Your task to perform on an android device: Open the calendar and show me this week's events Image 0: 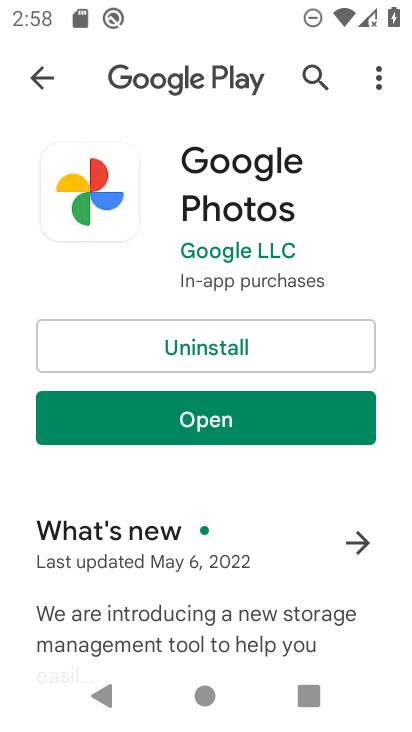
Step 0: press home button
Your task to perform on an android device: Open the calendar and show me this week's events Image 1: 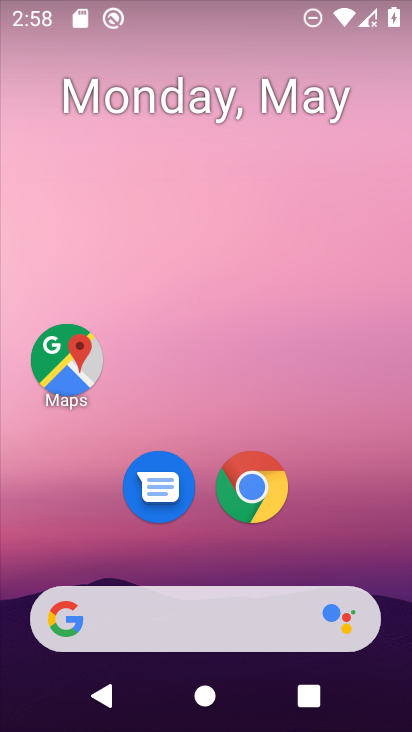
Step 1: drag from (395, 655) to (386, 163)
Your task to perform on an android device: Open the calendar and show me this week's events Image 2: 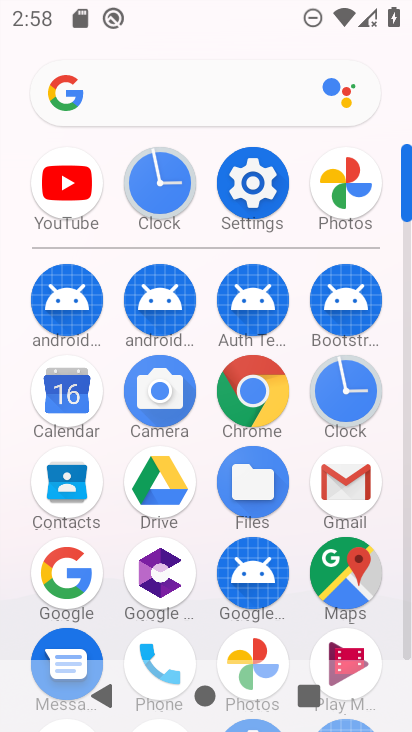
Step 2: click (68, 407)
Your task to perform on an android device: Open the calendar and show me this week's events Image 3: 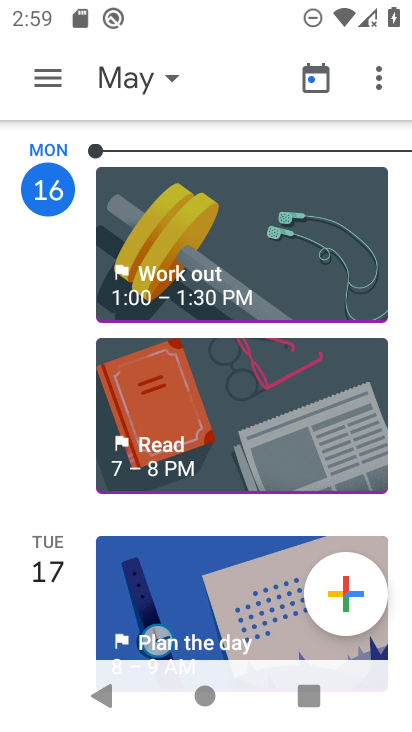
Step 3: click (166, 78)
Your task to perform on an android device: Open the calendar and show me this week's events Image 4: 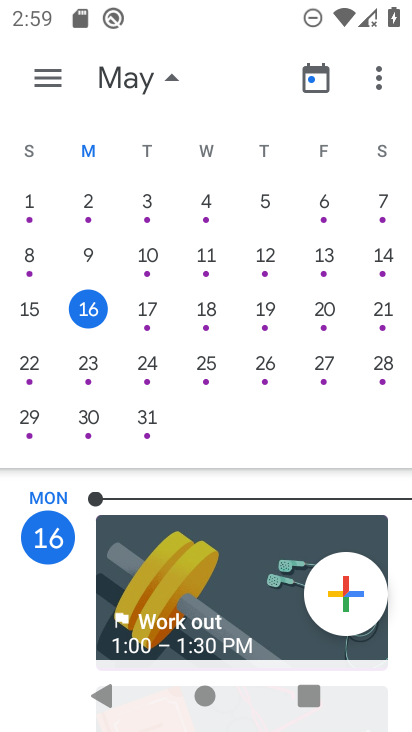
Step 4: click (42, 66)
Your task to perform on an android device: Open the calendar and show me this week's events Image 5: 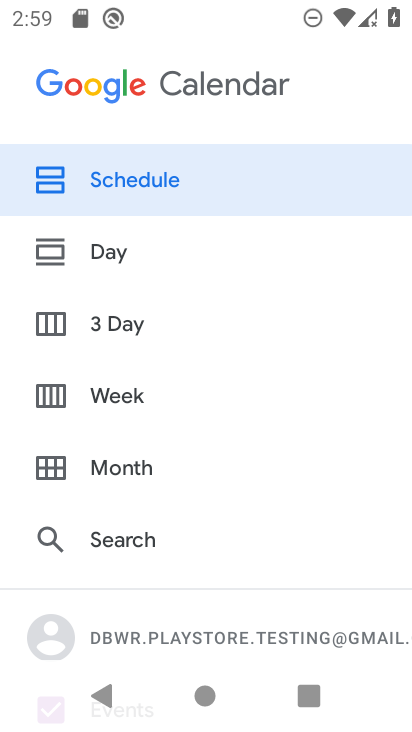
Step 5: click (90, 389)
Your task to perform on an android device: Open the calendar and show me this week's events Image 6: 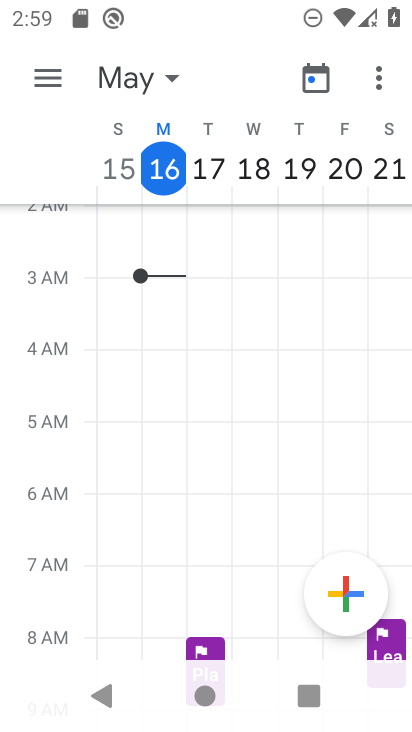
Step 6: task complete